Your task to perform on an android device: turn off notifications in google photos Image 0: 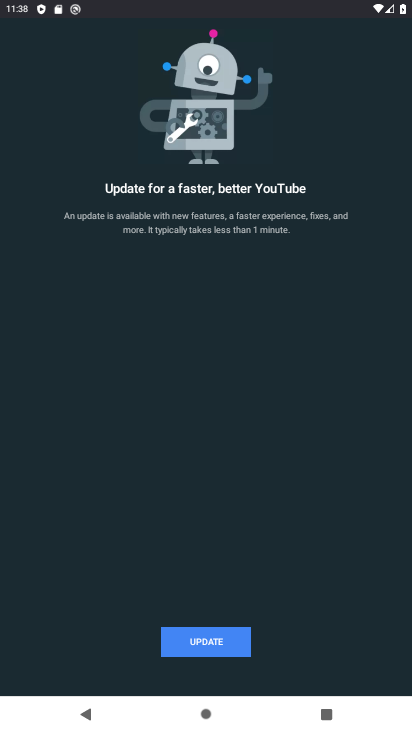
Step 0: press back button
Your task to perform on an android device: turn off notifications in google photos Image 1: 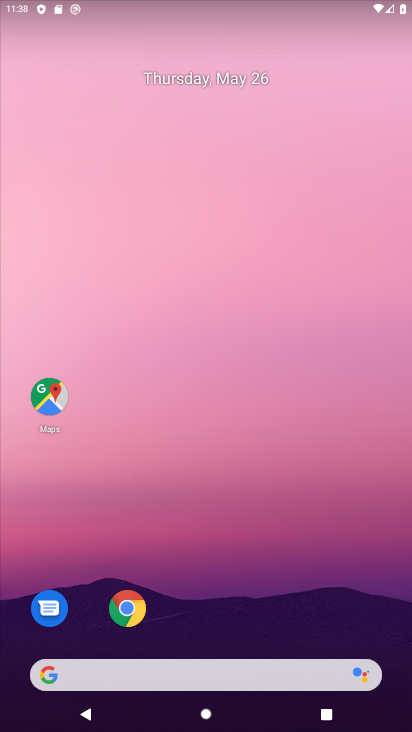
Step 1: drag from (233, 556) to (165, 38)
Your task to perform on an android device: turn off notifications in google photos Image 2: 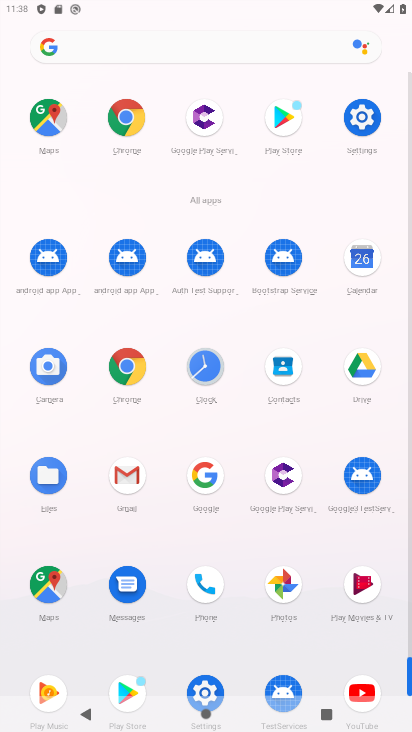
Step 2: drag from (20, 568) to (8, 266)
Your task to perform on an android device: turn off notifications in google photos Image 3: 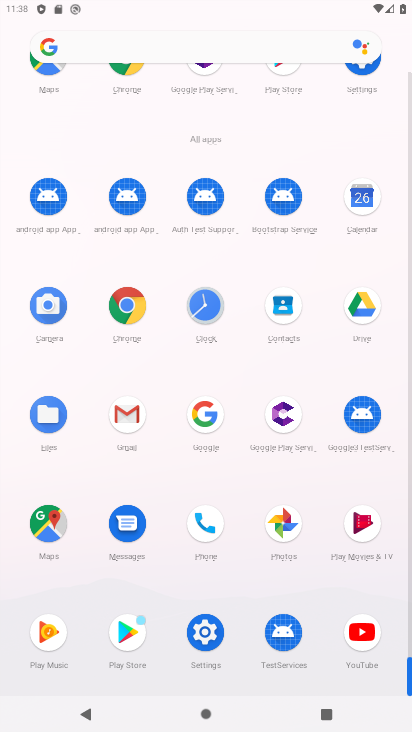
Step 3: click (277, 517)
Your task to perform on an android device: turn off notifications in google photos Image 4: 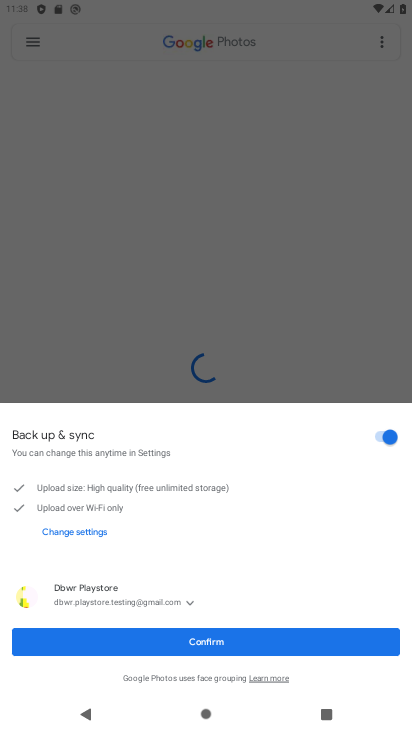
Step 4: click (245, 636)
Your task to perform on an android device: turn off notifications in google photos Image 5: 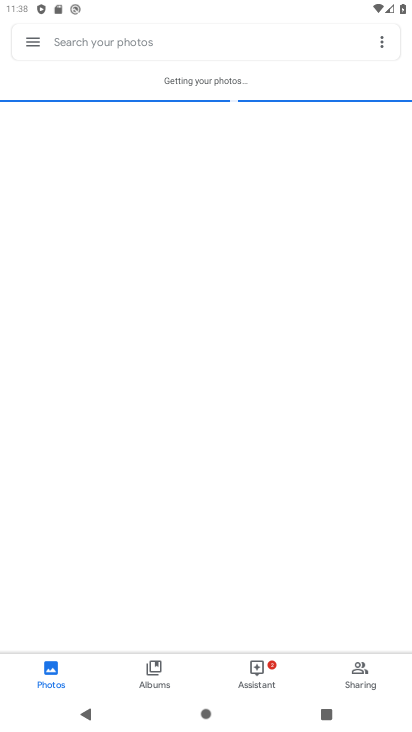
Step 5: click (28, 44)
Your task to perform on an android device: turn off notifications in google photos Image 6: 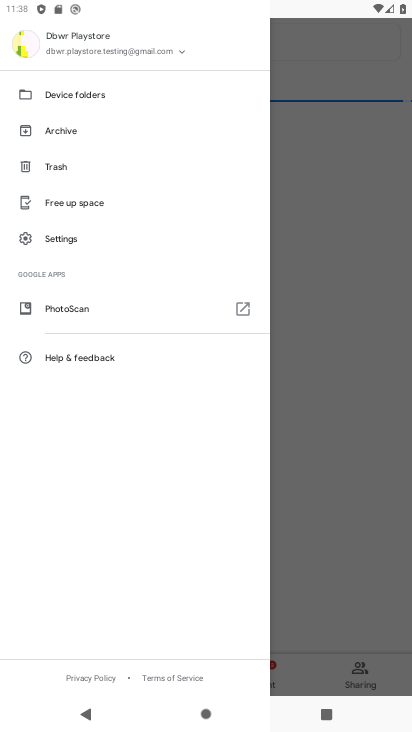
Step 6: click (80, 232)
Your task to perform on an android device: turn off notifications in google photos Image 7: 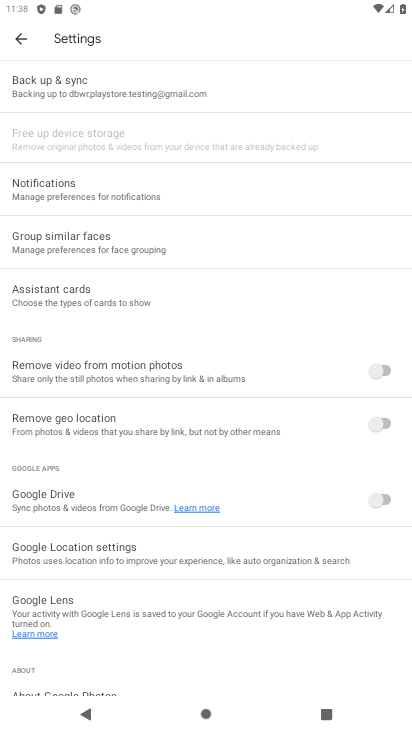
Step 7: click (85, 180)
Your task to perform on an android device: turn off notifications in google photos Image 8: 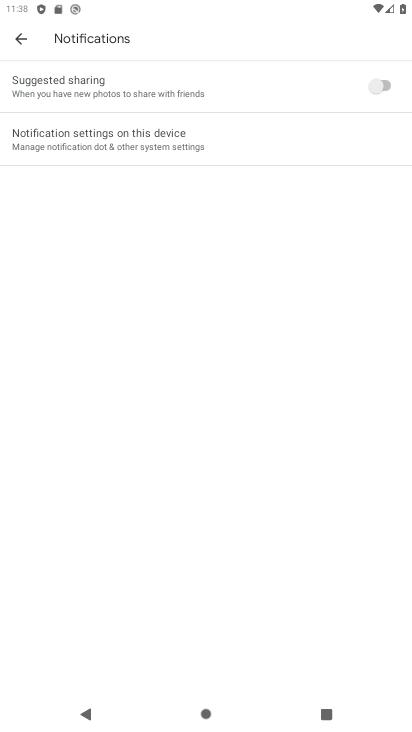
Step 8: click (256, 150)
Your task to perform on an android device: turn off notifications in google photos Image 9: 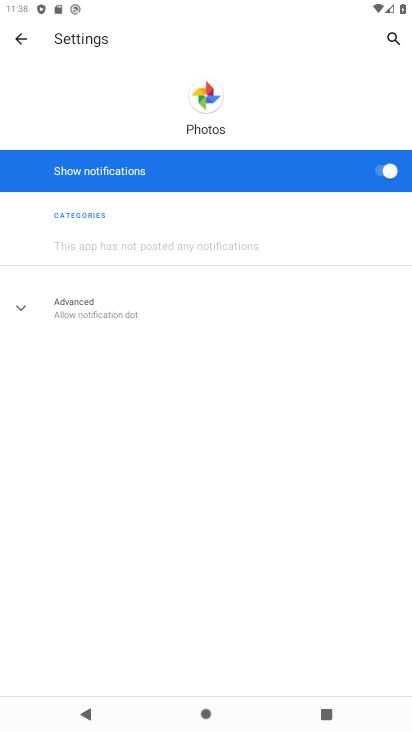
Step 9: click (383, 161)
Your task to perform on an android device: turn off notifications in google photos Image 10: 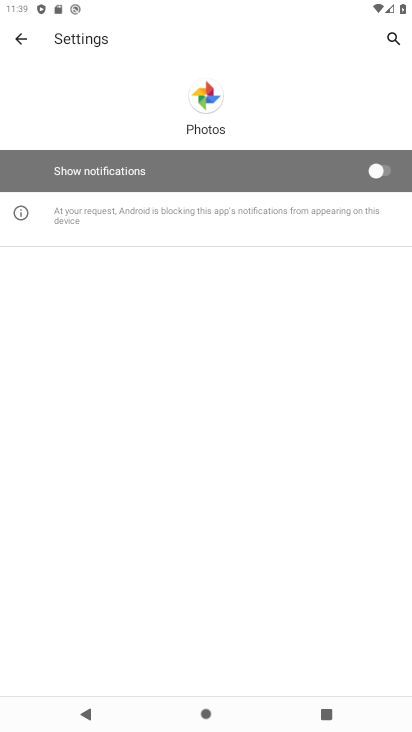
Step 10: task complete